Your task to perform on an android device: open sync settings in chrome Image 0: 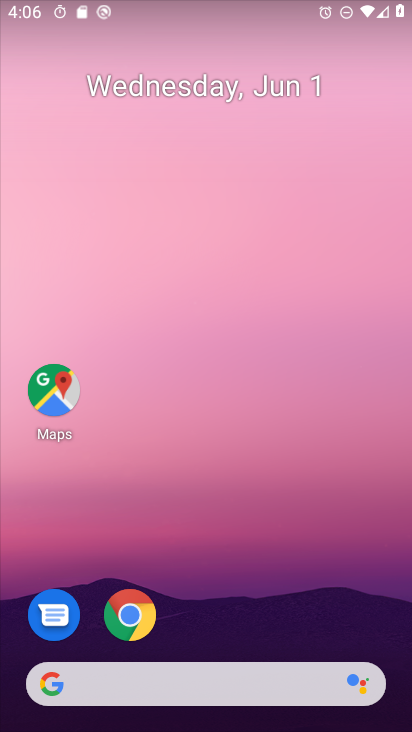
Step 0: drag from (324, 689) to (325, 3)
Your task to perform on an android device: open sync settings in chrome Image 1: 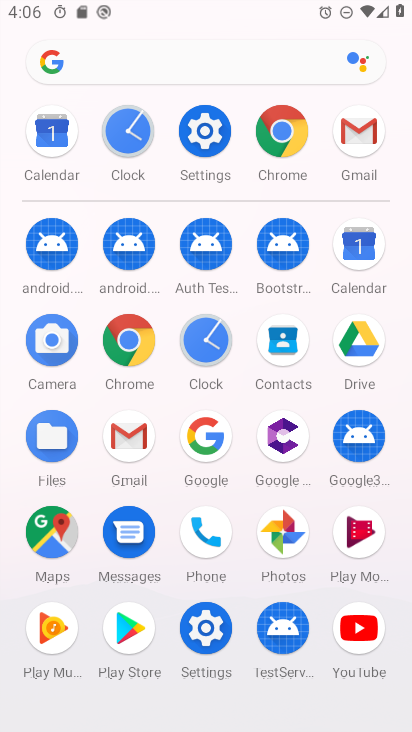
Step 1: click (124, 334)
Your task to perform on an android device: open sync settings in chrome Image 2: 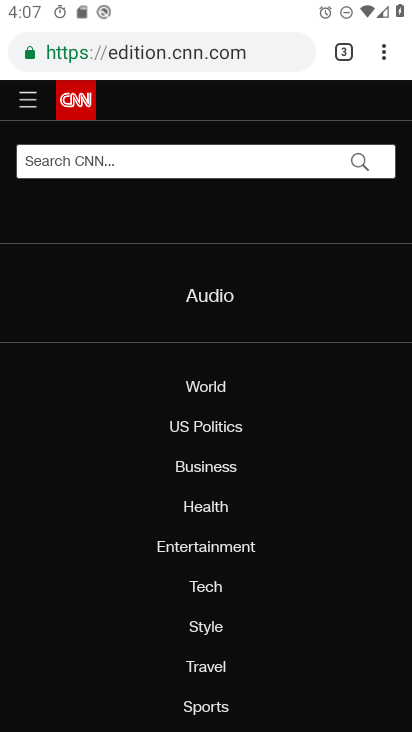
Step 2: click (389, 56)
Your task to perform on an android device: open sync settings in chrome Image 3: 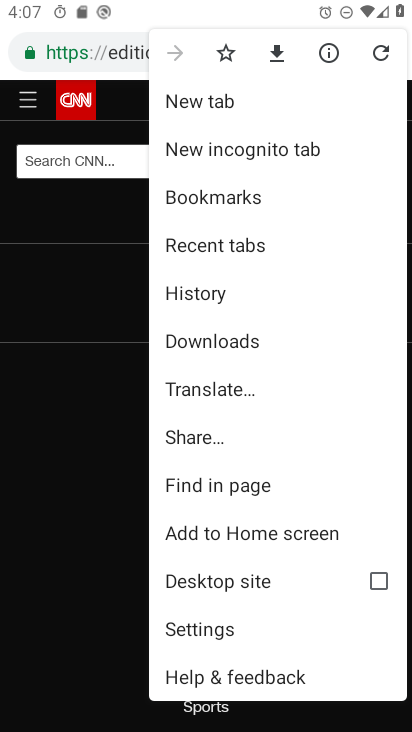
Step 3: click (211, 632)
Your task to perform on an android device: open sync settings in chrome Image 4: 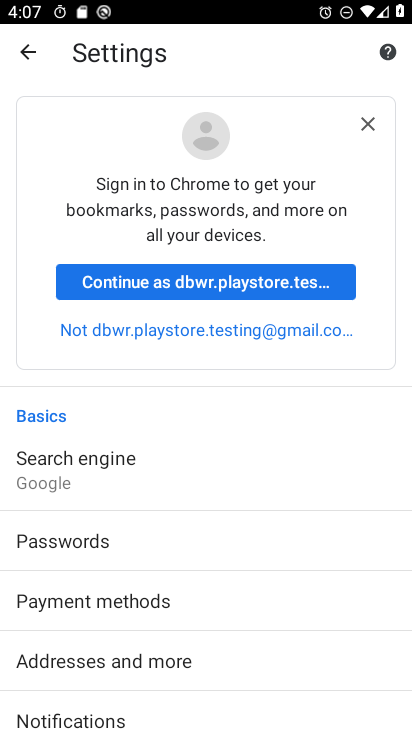
Step 4: drag from (151, 653) to (134, 91)
Your task to perform on an android device: open sync settings in chrome Image 5: 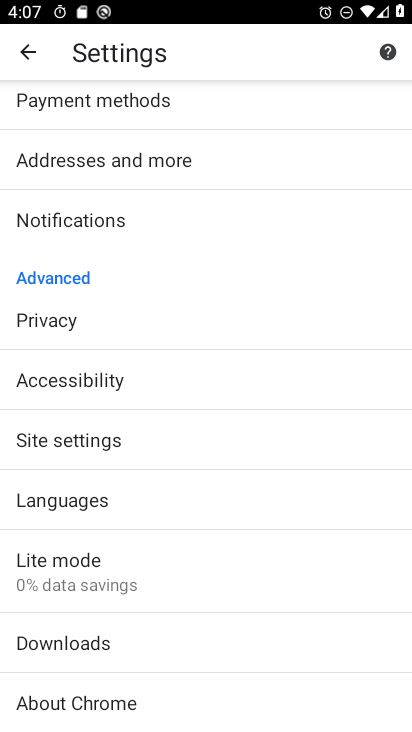
Step 5: drag from (109, 665) to (112, 483)
Your task to perform on an android device: open sync settings in chrome Image 6: 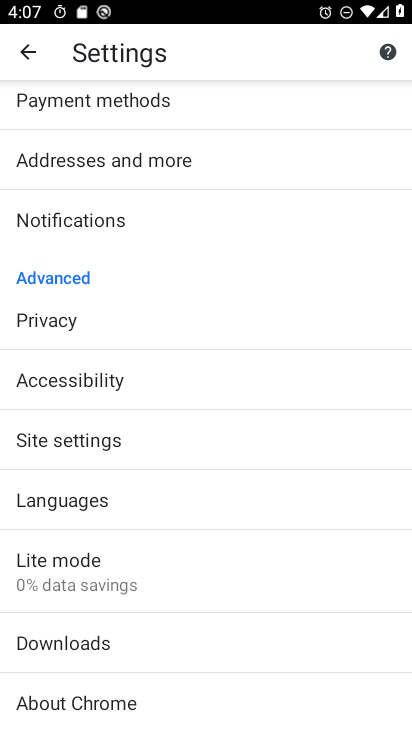
Step 6: click (130, 444)
Your task to perform on an android device: open sync settings in chrome Image 7: 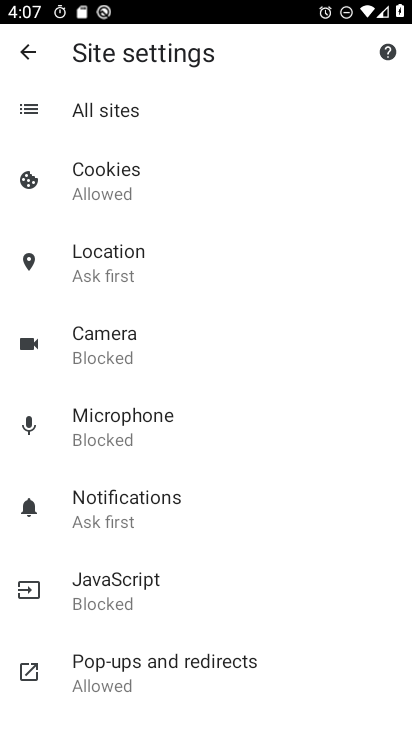
Step 7: drag from (145, 685) to (161, 279)
Your task to perform on an android device: open sync settings in chrome Image 8: 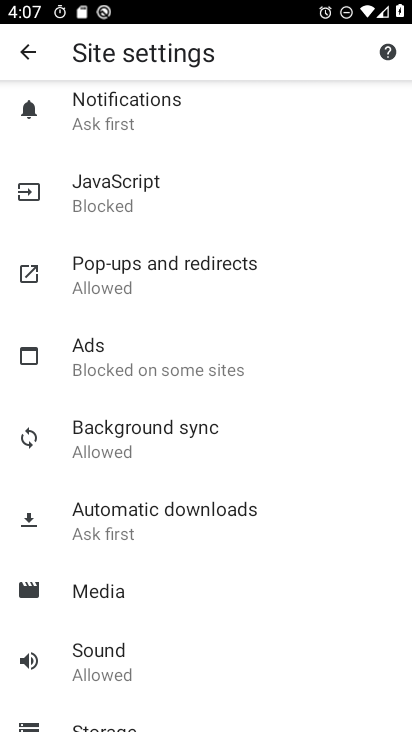
Step 8: click (146, 439)
Your task to perform on an android device: open sync settings in chrome Image 9: 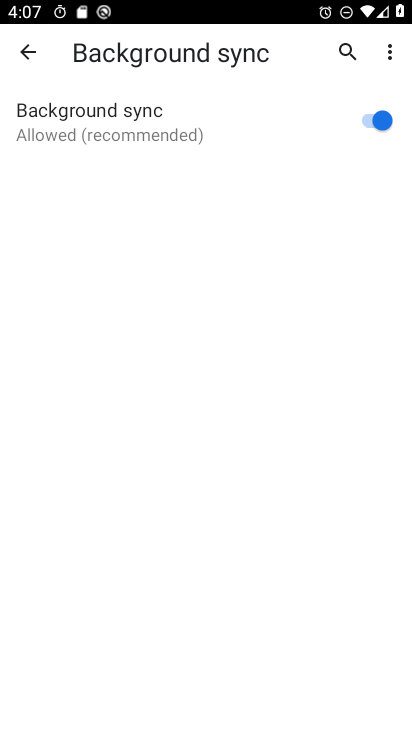
Step 9: task complete